Your task to perform on an android device: toggle notification dots Image 0: 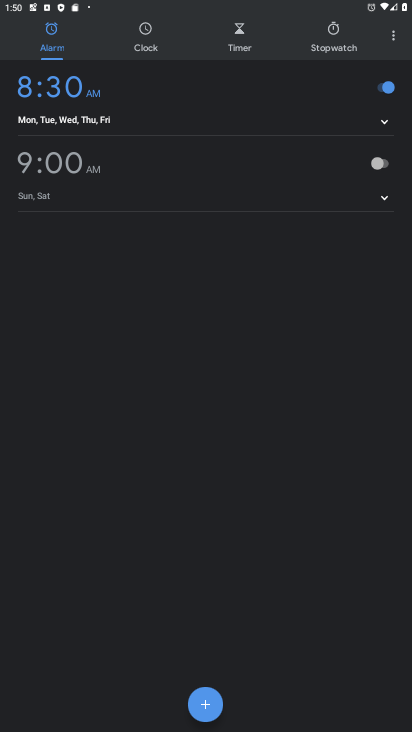
Step 0: press home button
Your task to perform on an android device: toggle notification dots Image 1: 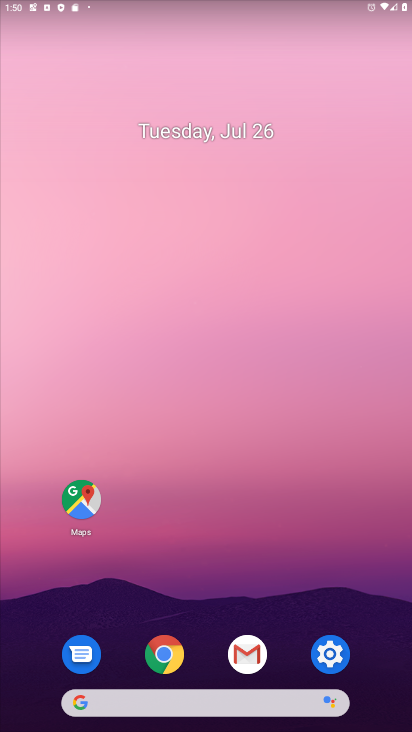
Step 1: click (324, 658)
Your task to perform on an android device: toggle notification dots Image 2: 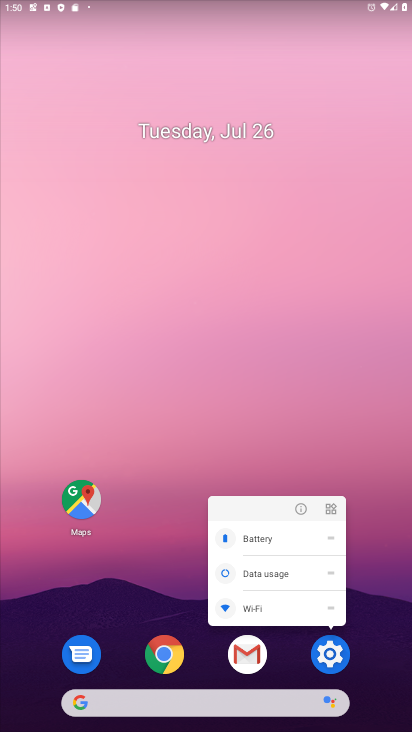
Step 2: click (324, 658)
Your task to perform on an android device: toggle notification dots Image 3: 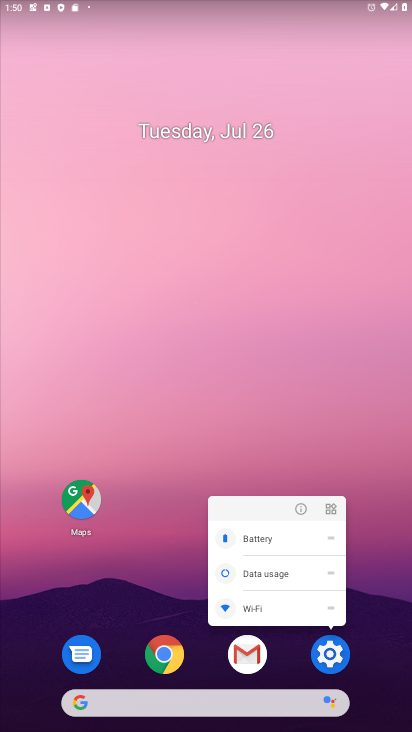
Step 3: click (324, 659)
Your task to perform on an android device: toggle notification dots Image 4: 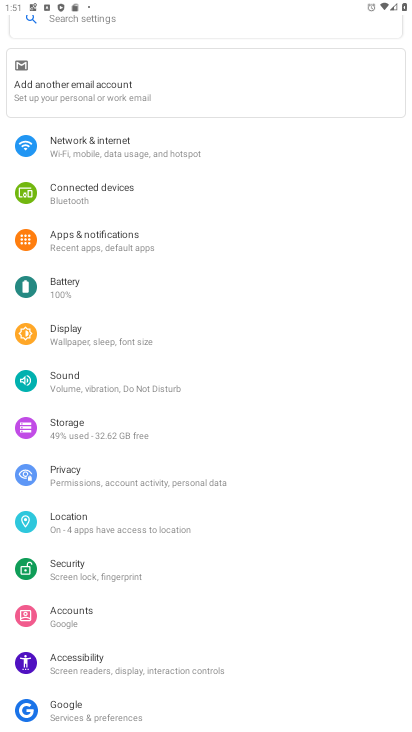
Step 4: click (91, 24)
Your task to perform on an android device: toggle notification dots Image 5: 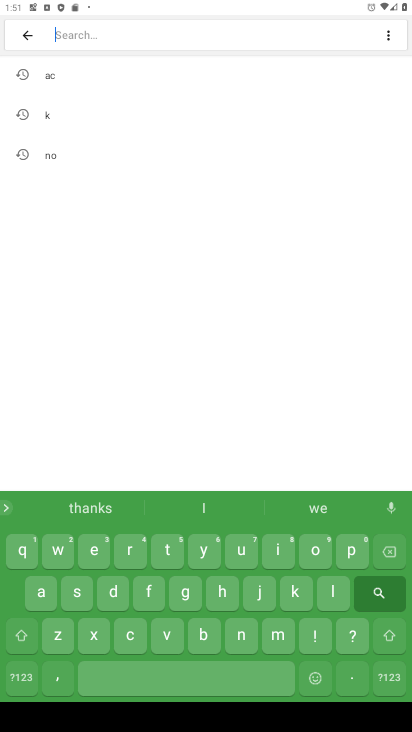
Step 5: click (79, 151)
Your task to perform on an android device: toggle notification dots Image 6: 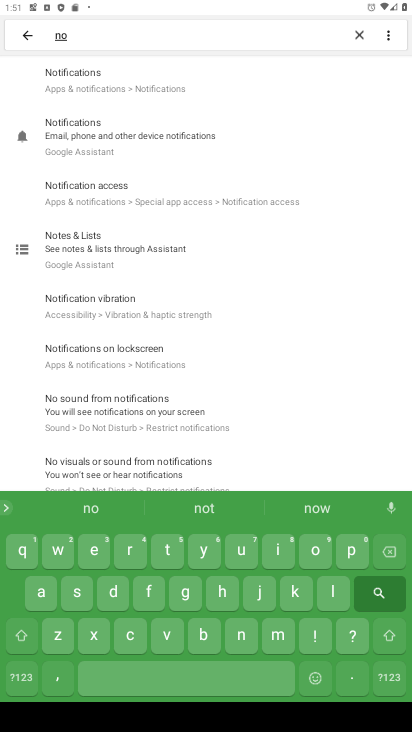
Step 6: click (80, 76)
Your task to perform on an android device: toggle notification dots Image 7: 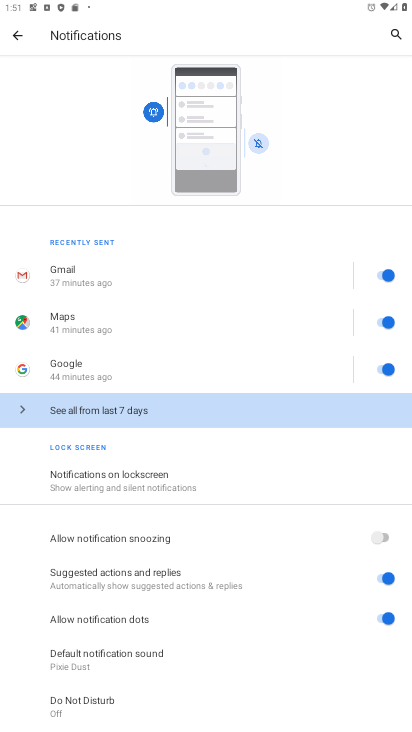
Step 7: click (338, 617)
Your task to perform on an android device: toggle notification dots Image 8: 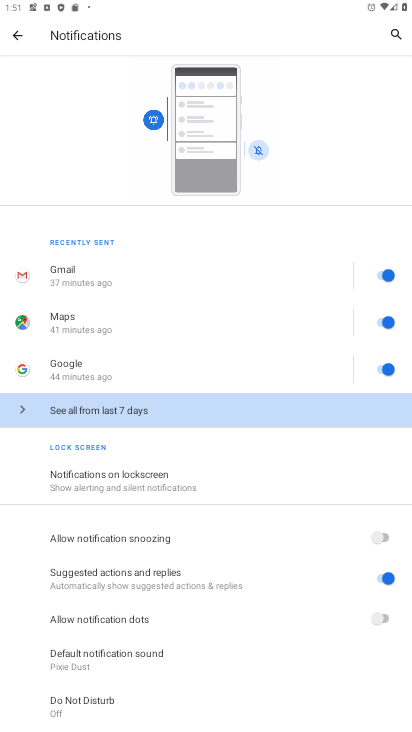
Step 8: click (338, 616)
Your task to perform on an android device: toggle notification dots Image 9: 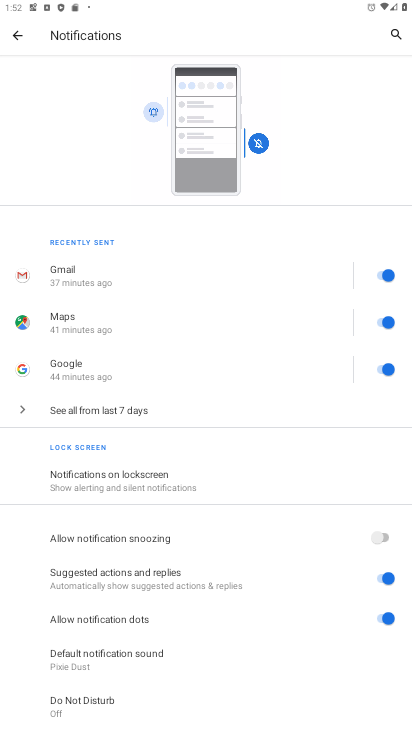
Step 9: task complete